Your task to perform on an android device: What's the weather going to be tomorrow? Image 0: 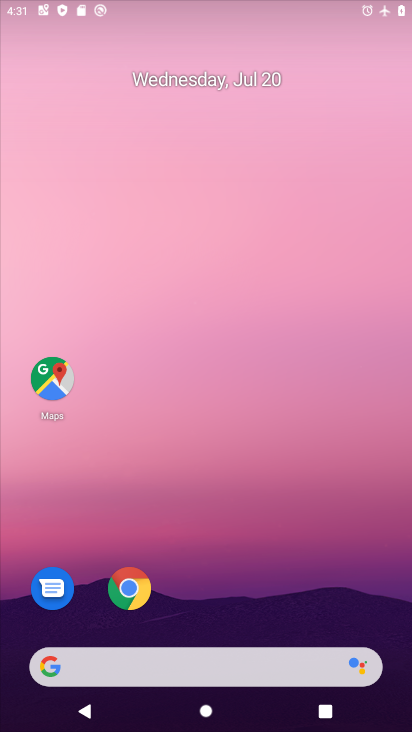
Step 0: drag from (297, 583) to (320, 14)
Your task to perform on an android device: What's the weather going to be tomorrow? Image 1: 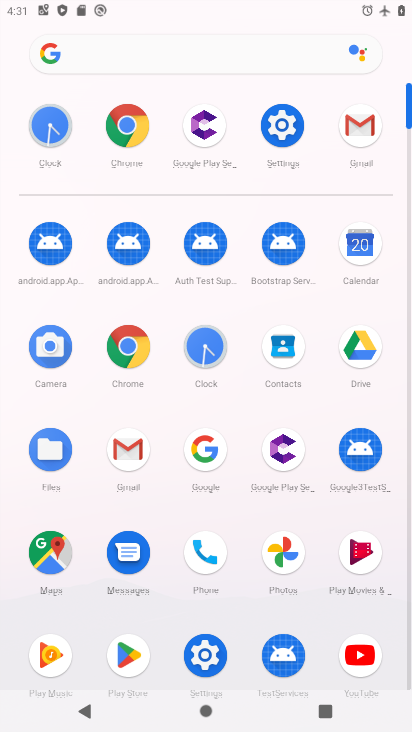
Step 1: click (132, 124)
Your task to perform on an android device: What's the weather going to be tomorrow? Image 2: 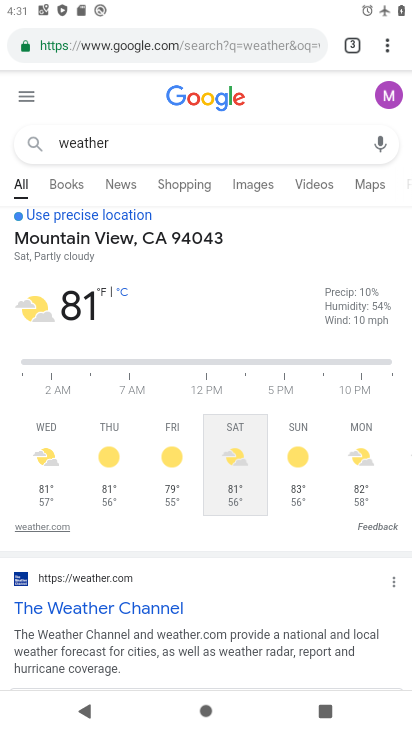
Step 2: click (99, 447)
Your task to perform on an android device: What's the weather going to be tomorrow? Image 3: 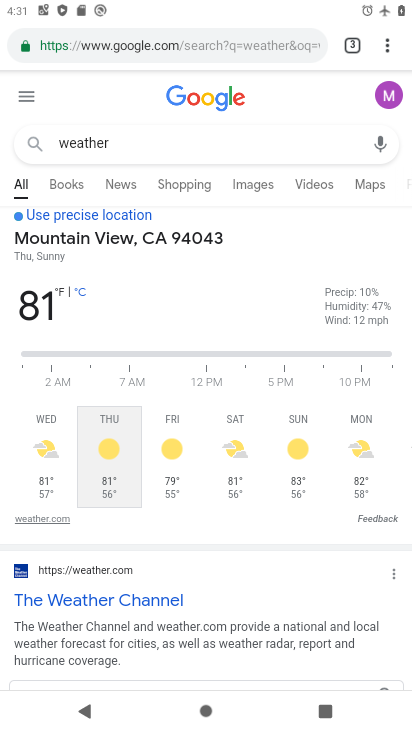
Step 3: task complete